Your task to perform on an android device: manage bookmarks in the chrome app Image 0: 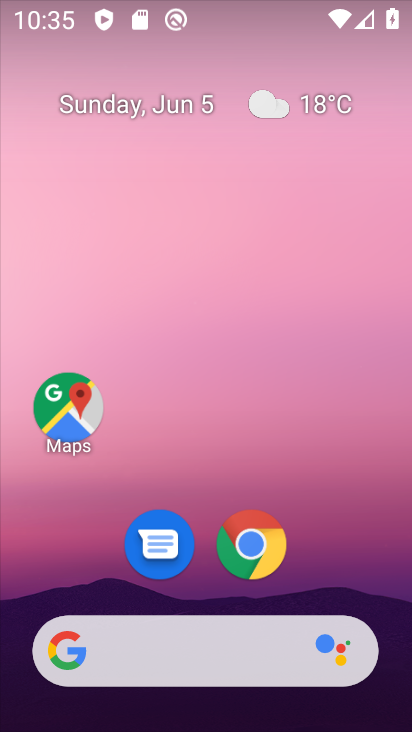
Step 0: click (238, 538)
Your task to perform on an android device: manage bookmarks in the chrome app Image 1: 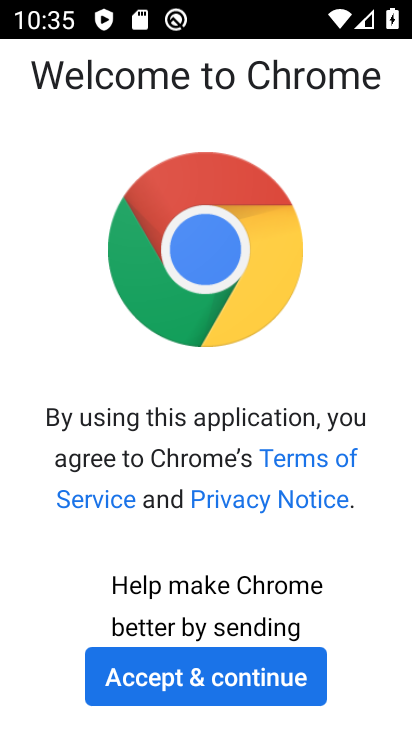
Step 1: click (159, 687)
Your task to perform on an android device: manage bookmarks in the chrome app Image 2: 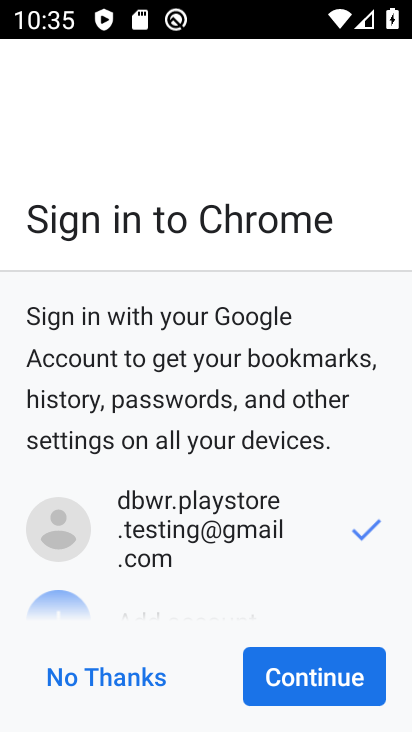
Step 2: click (290, 682)
Your task to perform on an android device: manage bookmarks in the chrome app Image 3: 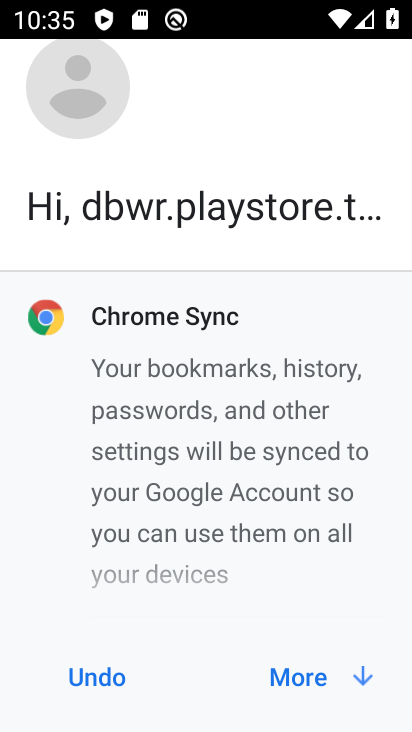
Step 3: click (290, 682)
Your task to perform on an android device: manage bookmarks in the chrome app Image 4: 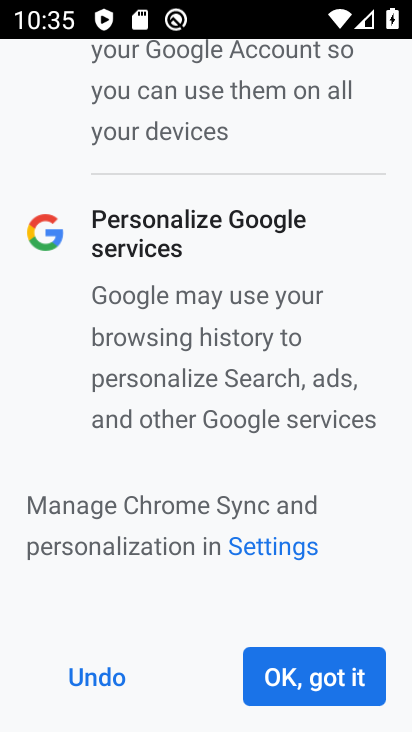
Step 4: click (290, 682)
Your task to perform on an android device: manage bookmarks in the chrome app Image 5: 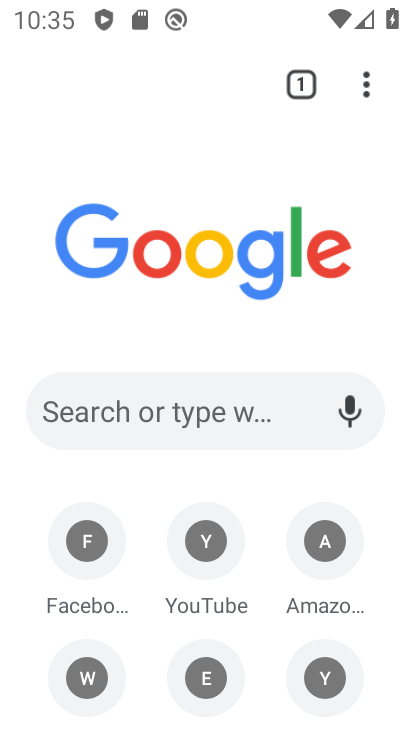
Step 5: drag from (259, 677) to (258, 449)
Your task to perform on an android device: manage bookmarks in the chrome app Image 6: 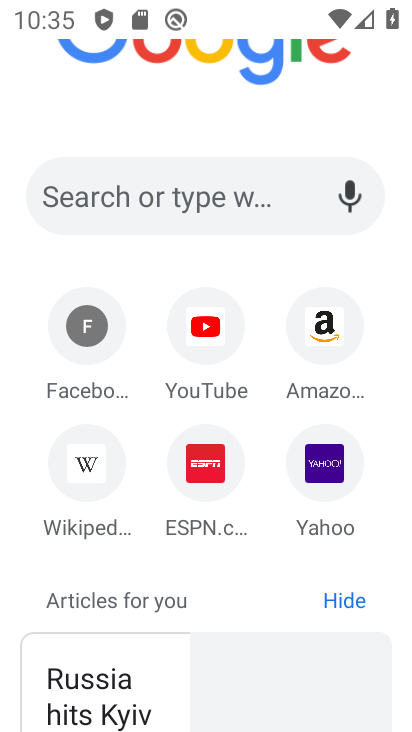
Step 6: drag from (328, 218) to (329, 481)
Your task to perform on an android device: manage bookmarks in the chrome app Image 7: 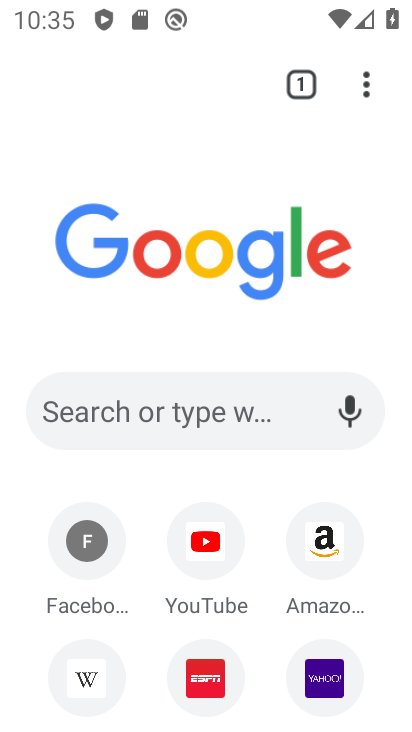
Step 7: click (366, 88)
Your task to perform on an android device: manage bookmarks in the chrome app Image 8: 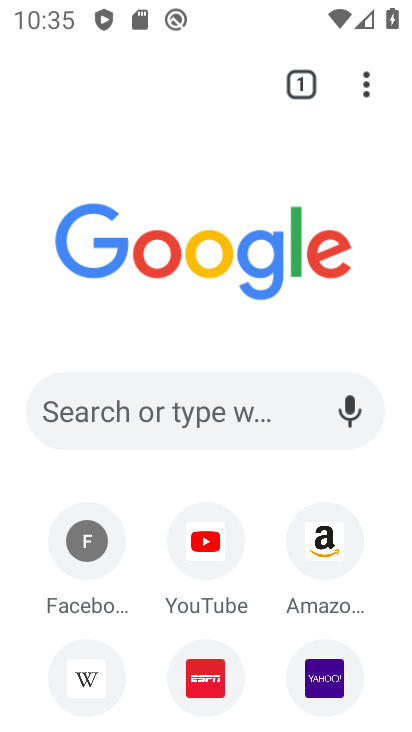
Step 8: click (368, 90)
Your task to perform on an android device: manage bookmarks in the chrome app Image 9: 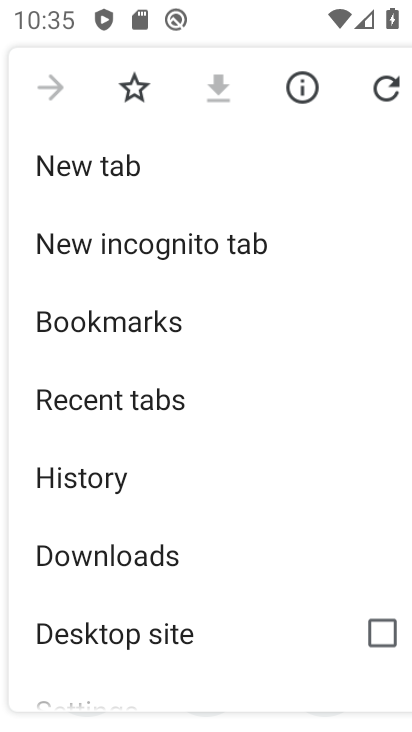
Step 9: drag from (143, 680) to (147, 366)
Your task to perform on an android device: manage bookmarks in the chrome app Image 10: 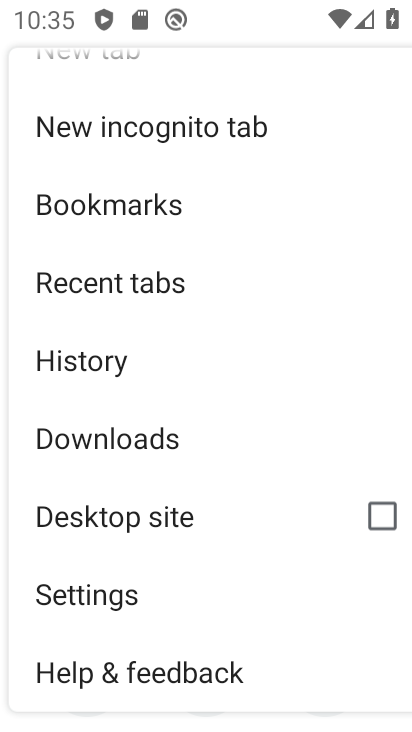
Step 10: click (151, 205)
Your task to perform on an android device: manage bookmarks in the chrome app Image 11: 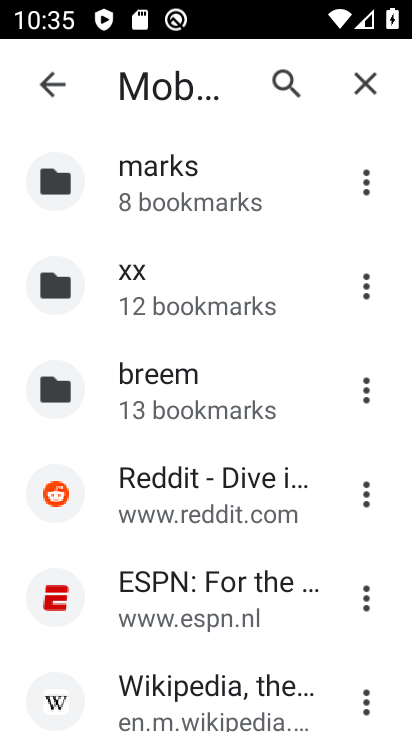
Step 11: task complete